Your task to perform on an android device: What's the weather like in Chicago? Image 0: 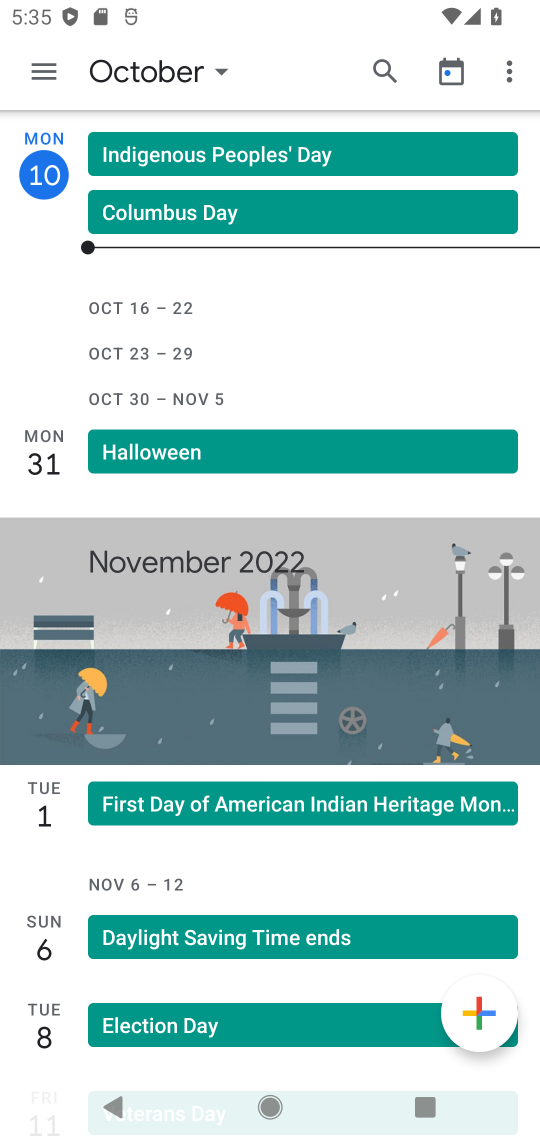
Step 0: press home button
Your task to perform on an android device: What's the weather like in Chicago? Image 1: 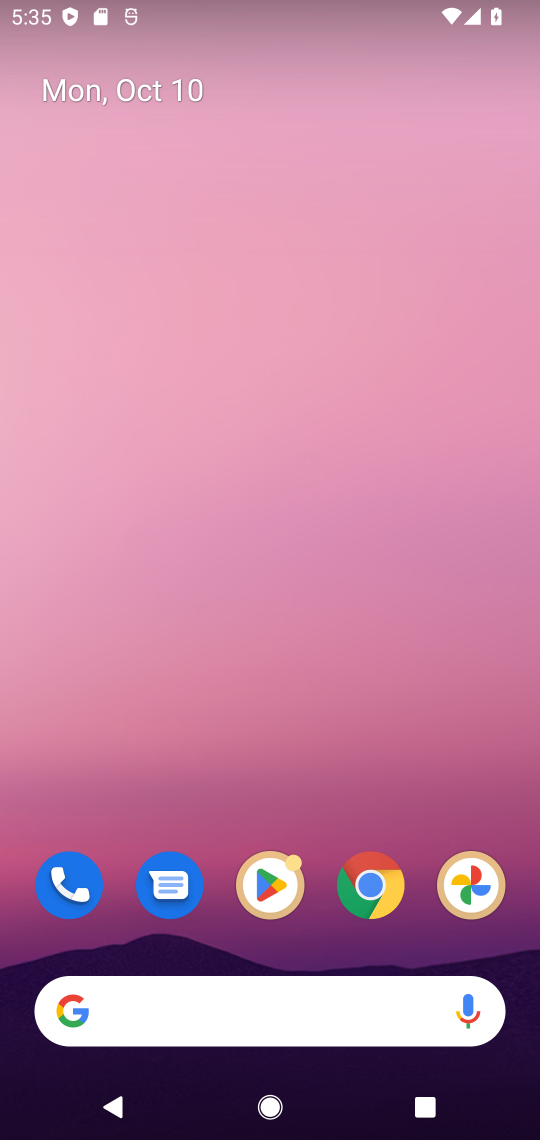
Step 1: click (349, 895)
Your task to perform on an android device: What's the weather like in Chicago? Image 2: 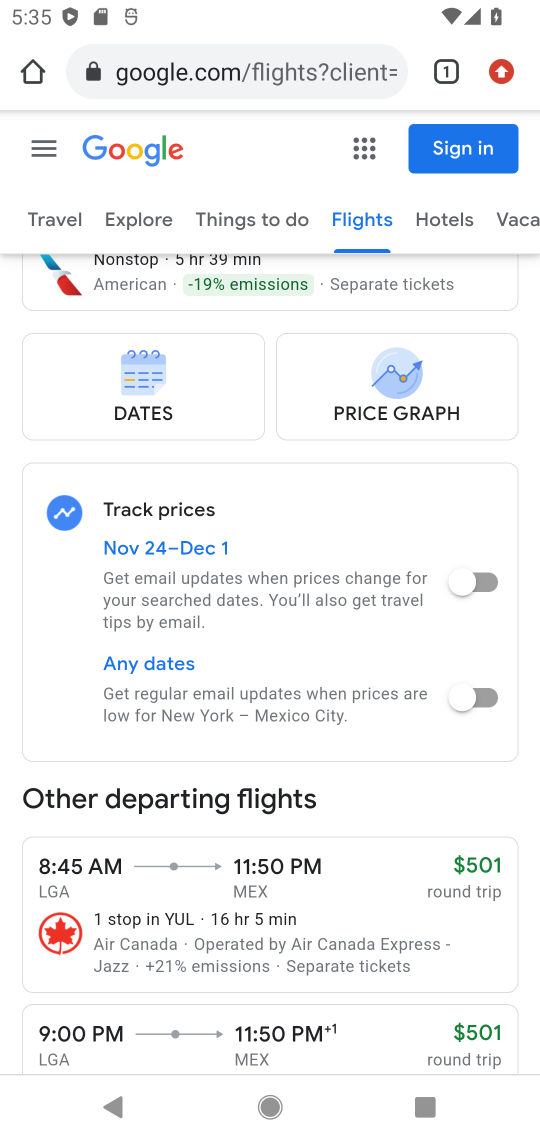
Step 2: click (332, 77)
Your task to perform on an android device: What's the weather like in Chicago? Image 3: 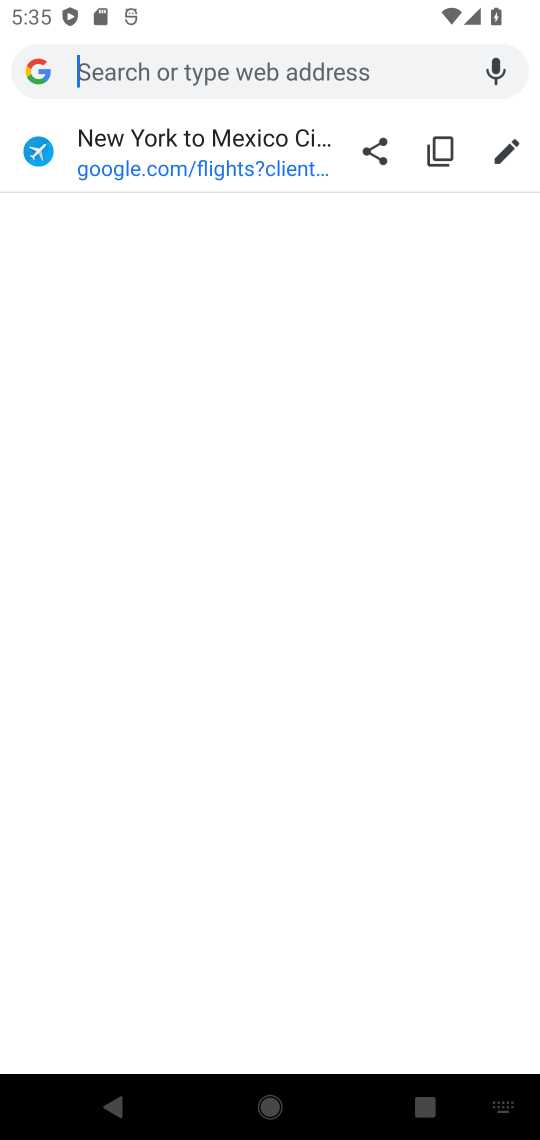
Step 3: type "weather like in Chicago"
Your task to perform on an android device: What's the weather like in Chicago? Image 4: 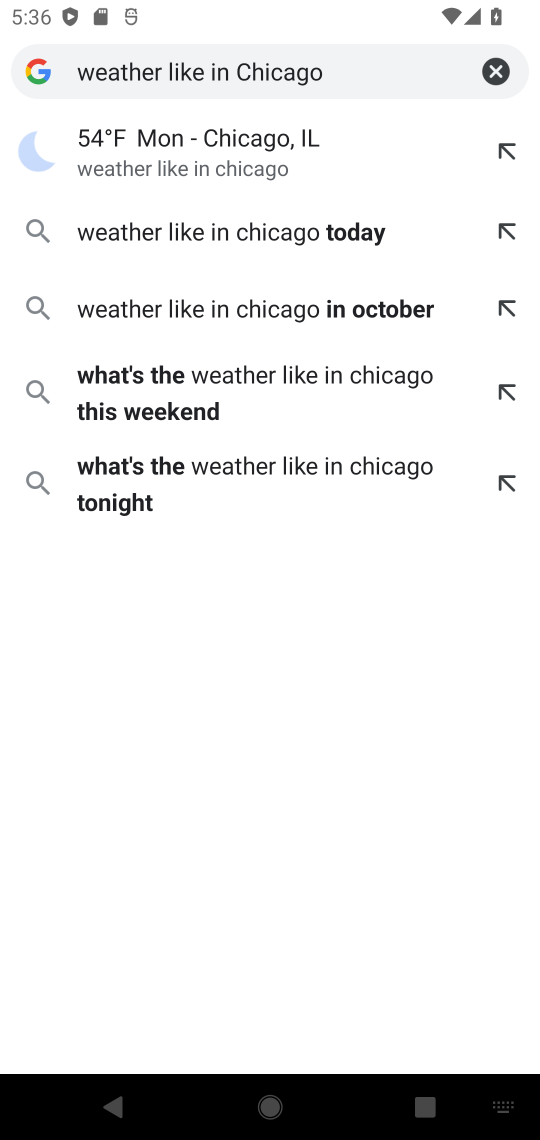
Step 4: click (245, 157)
Your task to perform on an android device: What's the weather like in Chicago? Image 5: 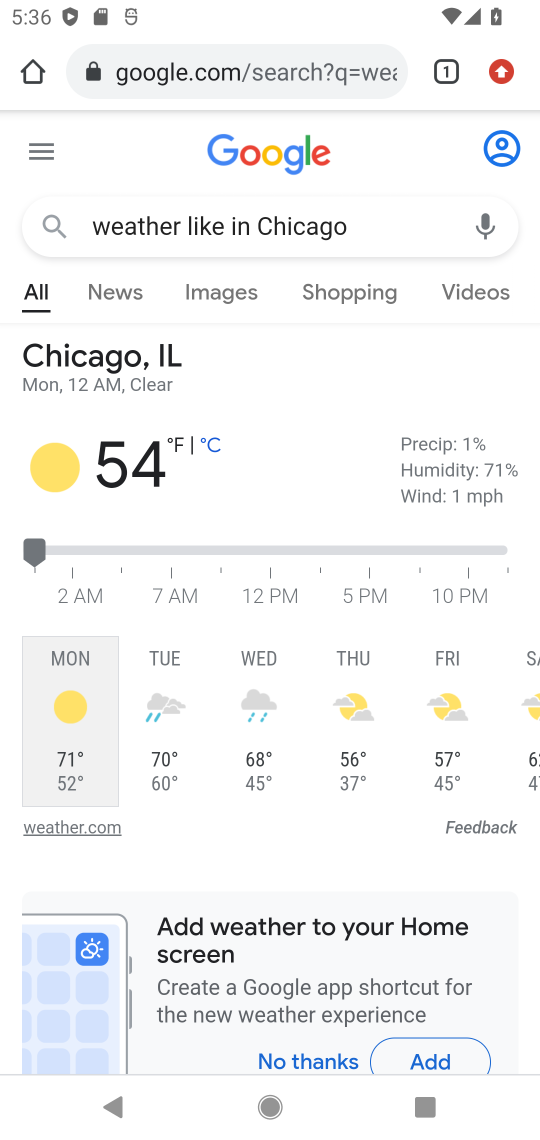
Step 5: task complete